Your task to perform on an android device: See recent photos Image 0: 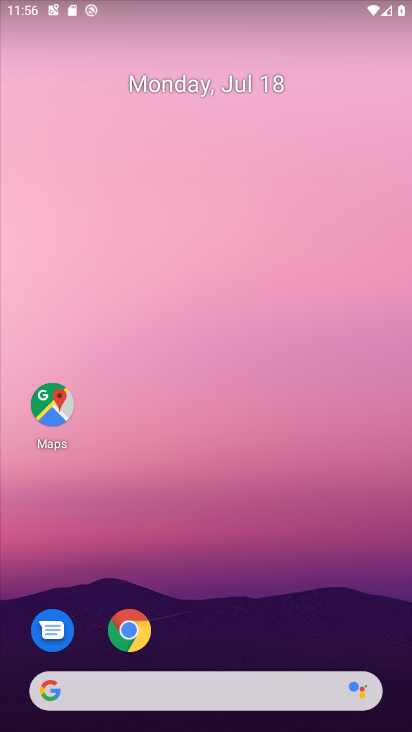
Step 0: drag from (207, 602) to (254, 9)
Your task to perform on an android device: See recent photos Image 1: 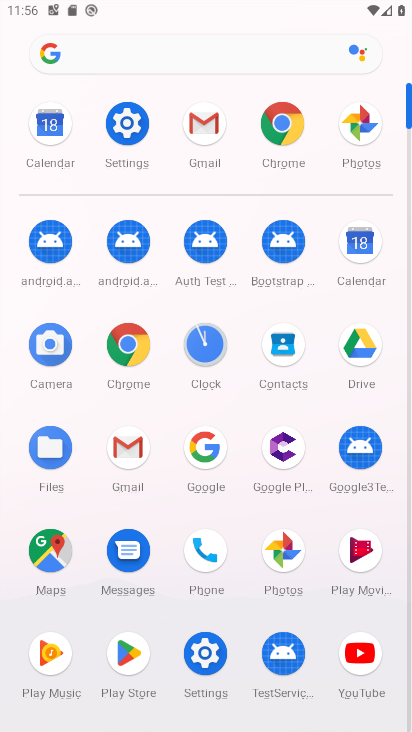
Step 1: click (277, 553)
Your task to perform on an android device: See recent photos Image 2: 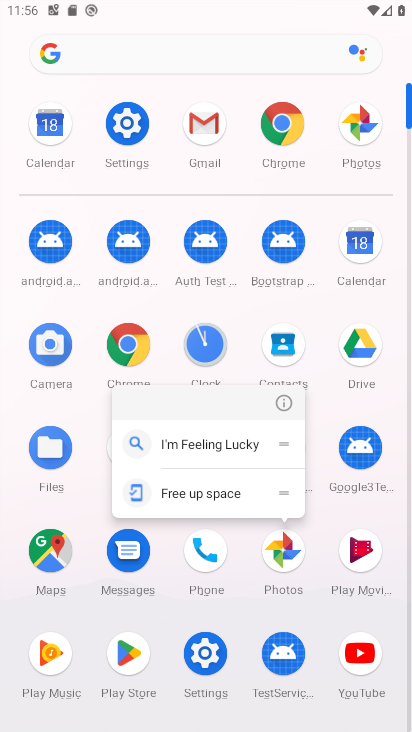
Step 2: click (273, 550)
Your task to perform on an android device: See recent photos Image 3: 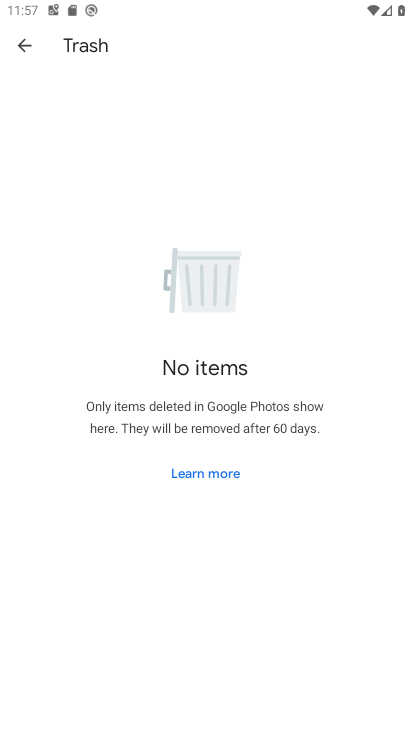
Step 3: click (18, 41)
Your task to perform on an android device: See recent photos Image 4: 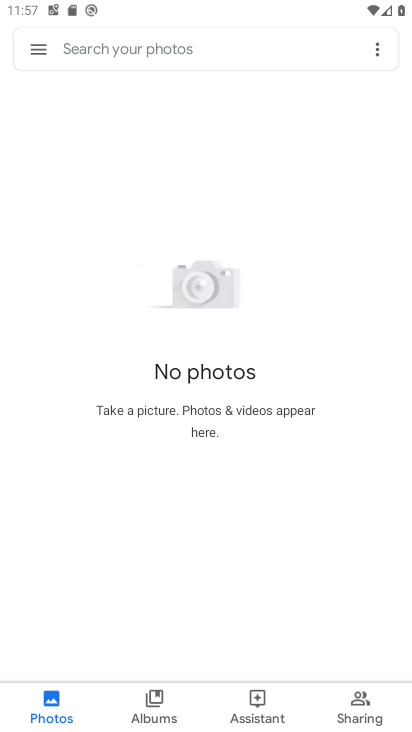
Step 4: task complete